Your task to perform on an android device: Open sound settings Image 0: 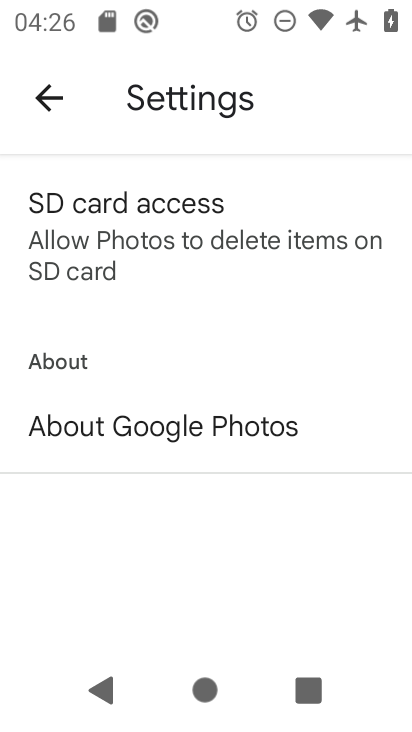
Step 0: press home button
Your task to perform on an android device: Open sound settings Image 1: 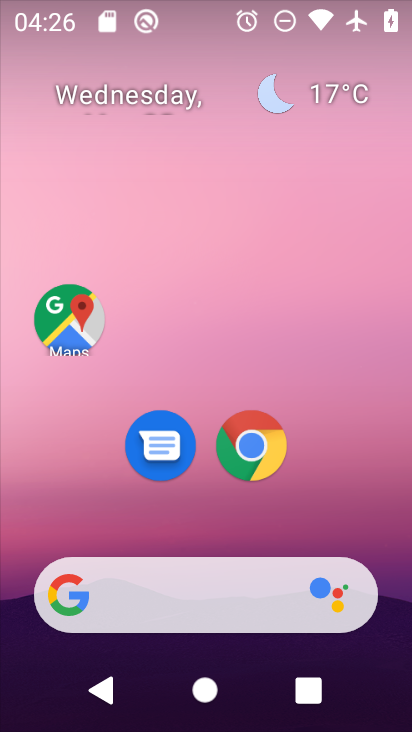
Step 1: drag from (169, 616) to (226, 124)
Your task to perform on an android device: Open sound settings Image 2: 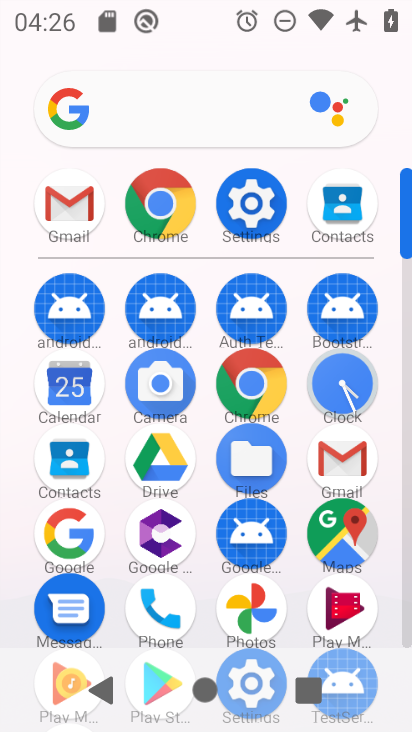
Step 2: click (270, 212)
Your task to perform on an android device: Open sound settings Image 3: 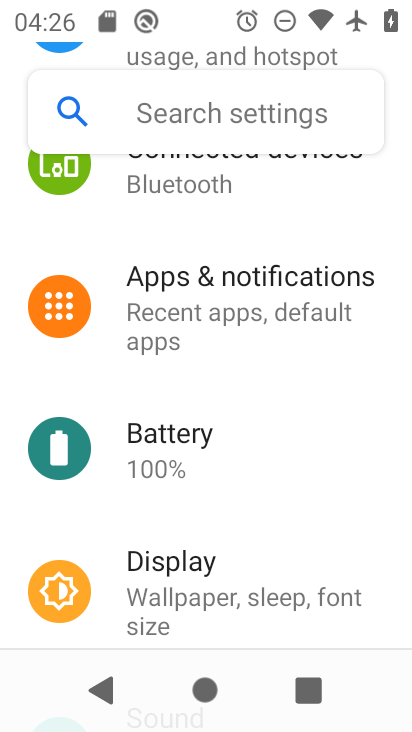
Step 3: drag from (159, 241) to (146, 148)
Your task to perform on an android device: Open sound settings Image 4: 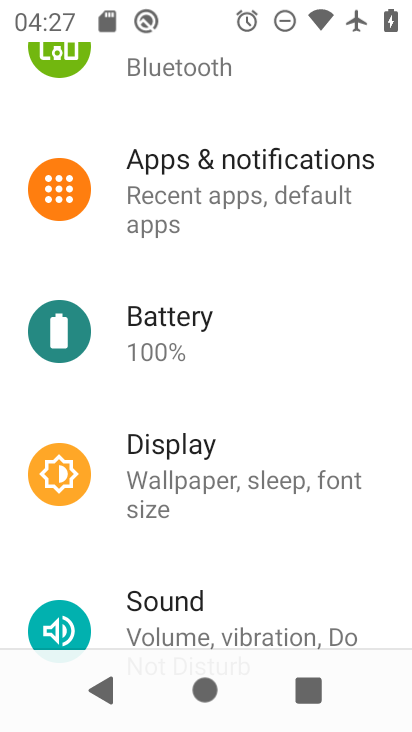
Step 4: click (174, 587)
Your task to perform on an android device: Open sound settings Image 5: 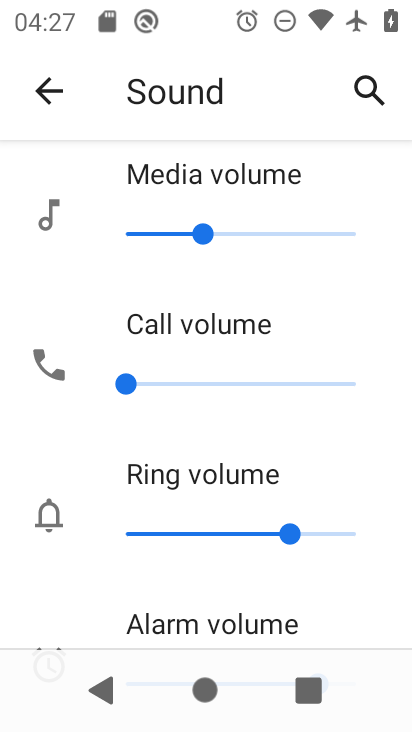
Step 5: task complete